Your task to perform on an android device: Open Google Chrome and click the shortcut for Amazon.com Image 0: 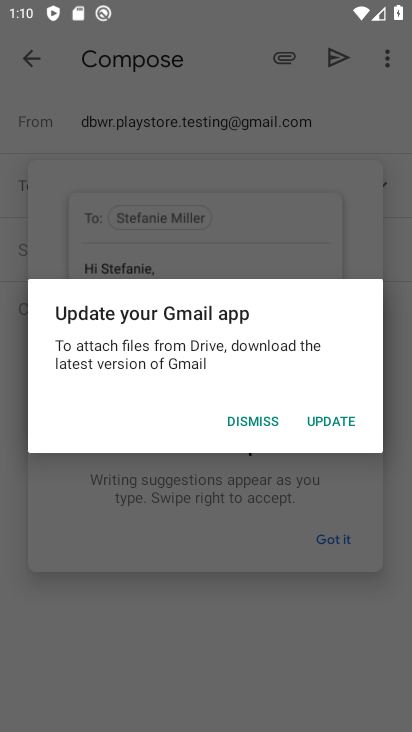
Step 0: press home button
Your task to perform on an android device: Open Google Chrome and click the shortcut for Amazon.com Image 1: 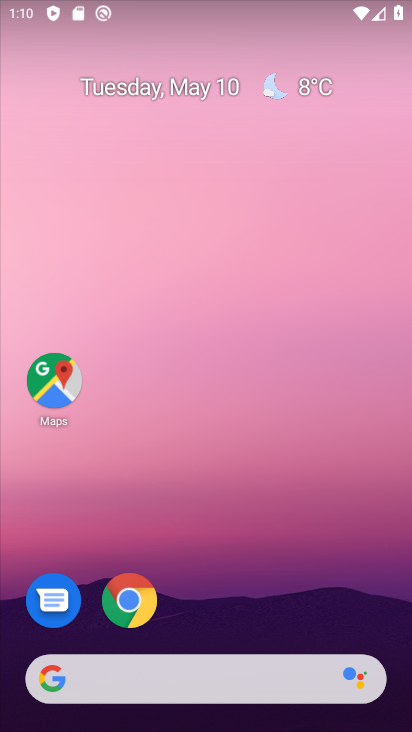
Step 1: click (125, 593)
Your task to perform on an android device: Open Google Chrome and click the shortcut for Amazon.com Image 2: 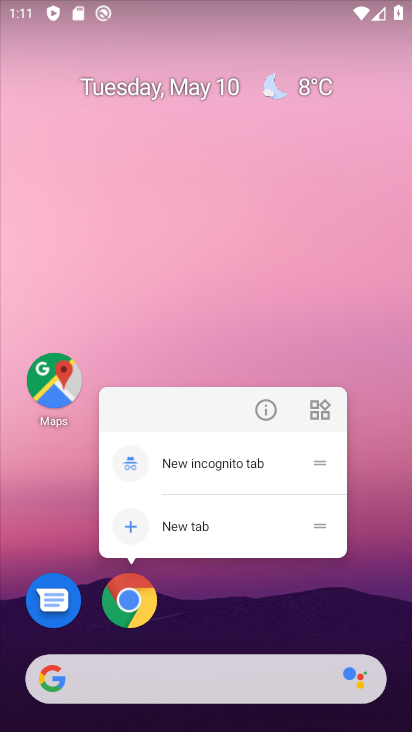
Step 2: click (127, 593)
Your task to perform on an android device: Open Google Chrome and click the shortcut for Amazon.com Image 3: 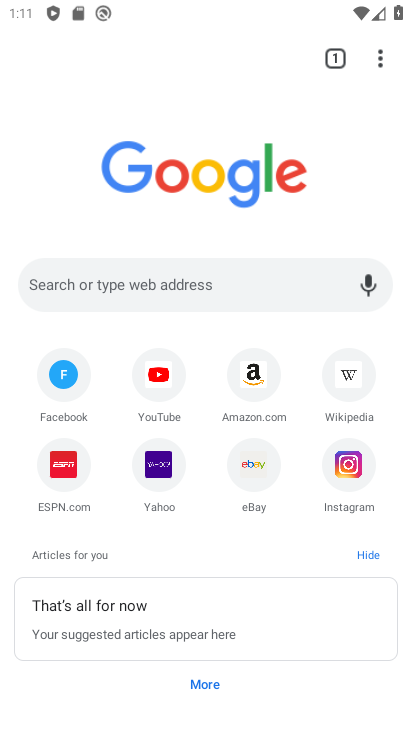
Step 3: click (256, 367)
Your task to perform on an android device: Open Google Chrome and click the shortcut for Amazon.com Image 4: 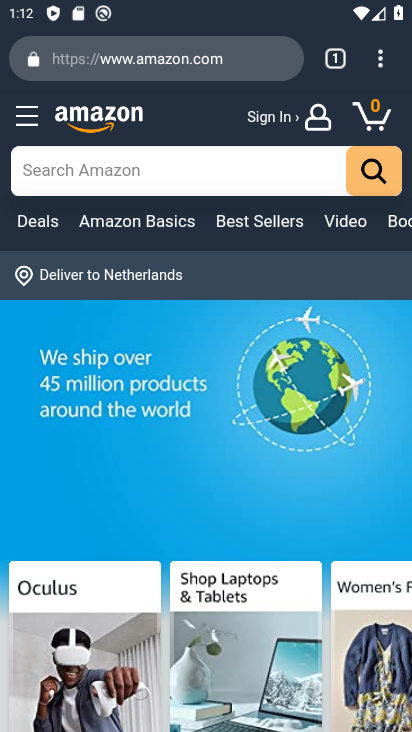
Step 4: task complete